Your task to perform on an android device: change text size in settings app Image 0: 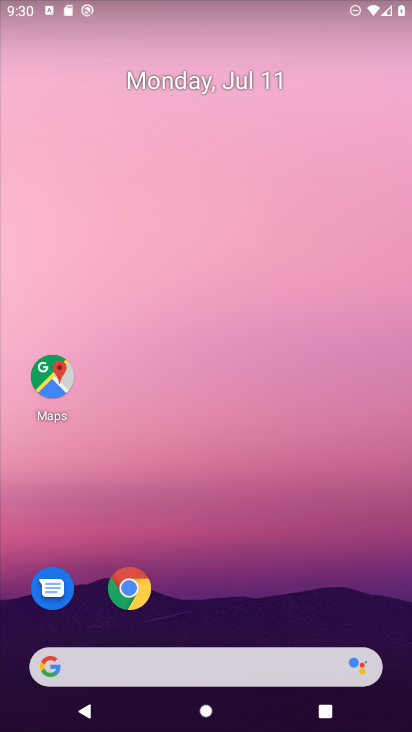
Step 0: drag from (388, 648) to (228, 2)
Your task to perform on an android device: change text size in settings app Image 1: 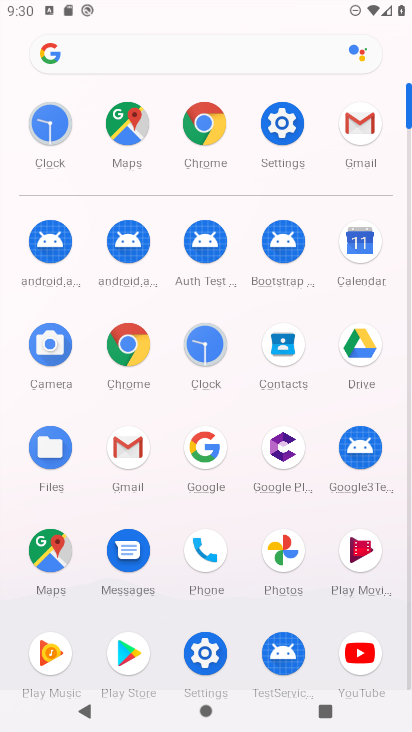
Step 1: click (191, 662)
Your task to perform on an android device: change text size in settings app Image 2: 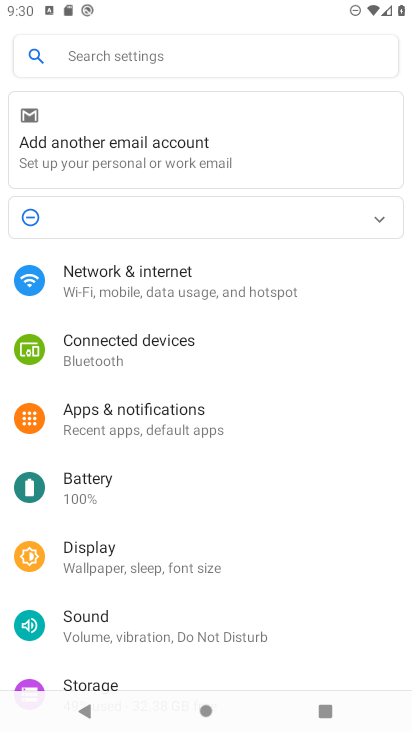
Step 2: click (121, 559)
Your task to perform on an android device: change text size in settings app Image 3: 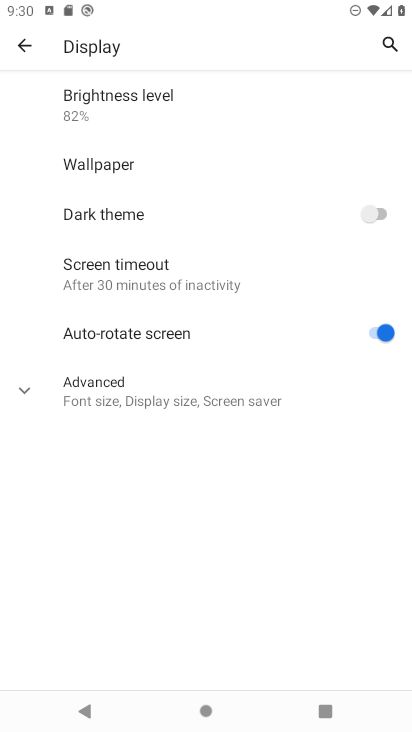
Step 3: click (26, 398)
Your task to perform on an android device: change text size in settings app Image 4: 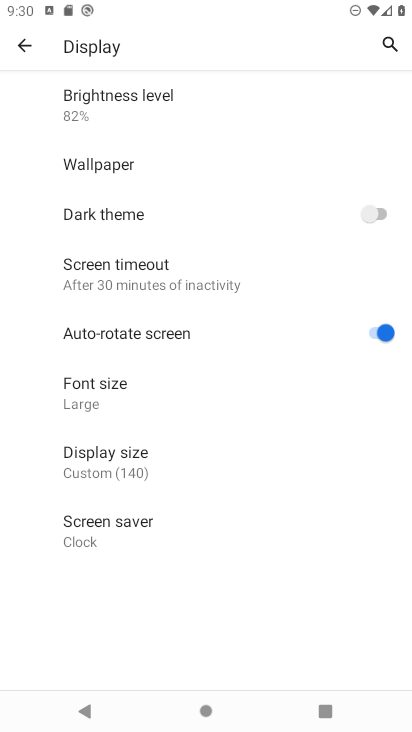
Step 4: click (164, 393)
Your task to perform on an android device: change text size in settings app Image 5: 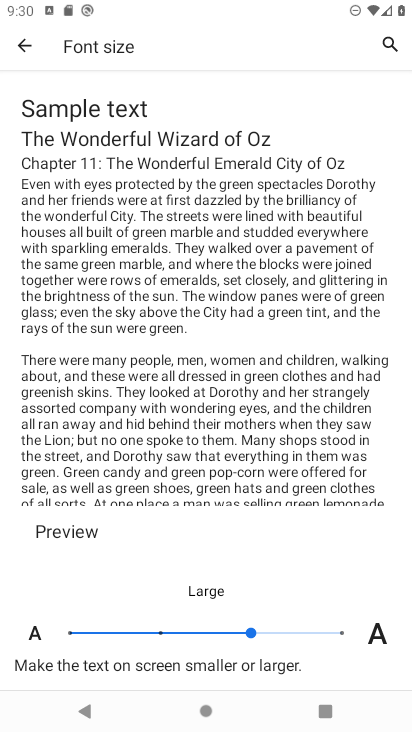
Step 5: click (343, 630)
Your task to perform on an android device: change text size in settings app Image 6: 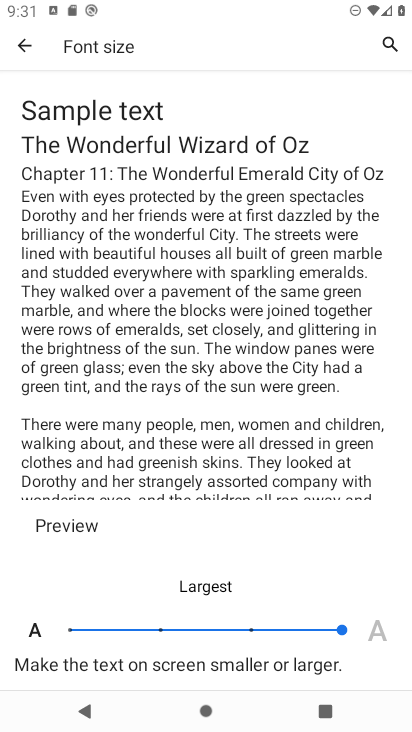
Step 6: task complete